Your task to perform on an android device: change the clock display to analog Image 0: 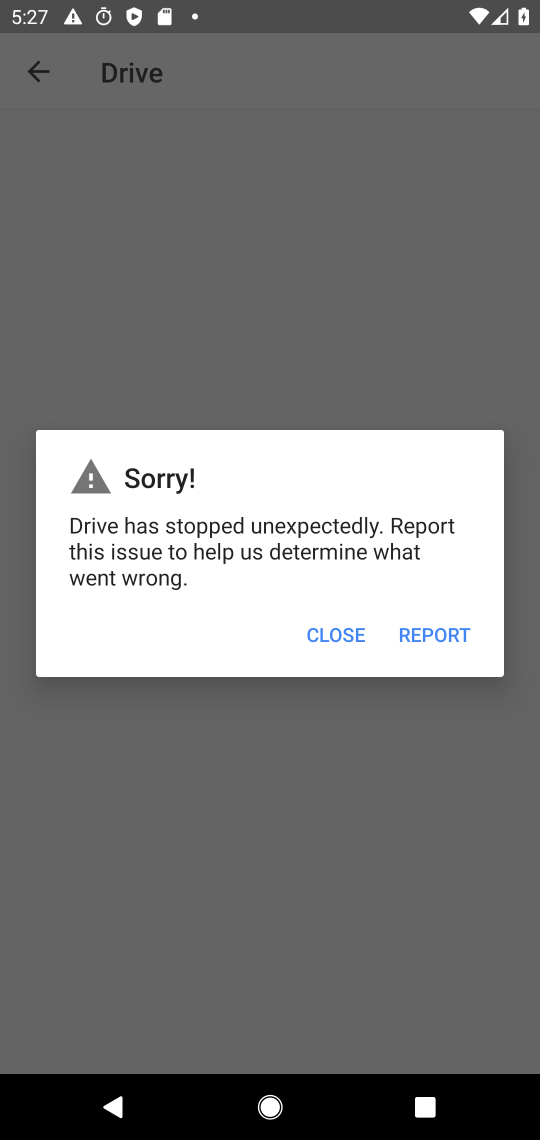
Step 0: press home button
Your task to perform on an android device: change the clock display to analog Image 1: 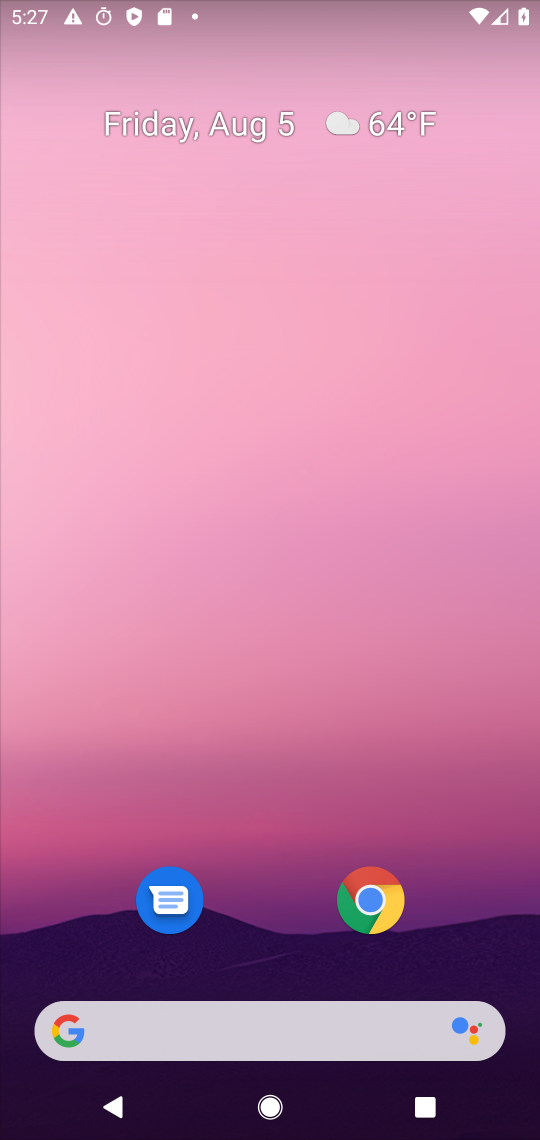
Step 1: drag from (231, 1019) to (263, 91)
Your task to perform on an android device: change the clock display to analog Image 2: 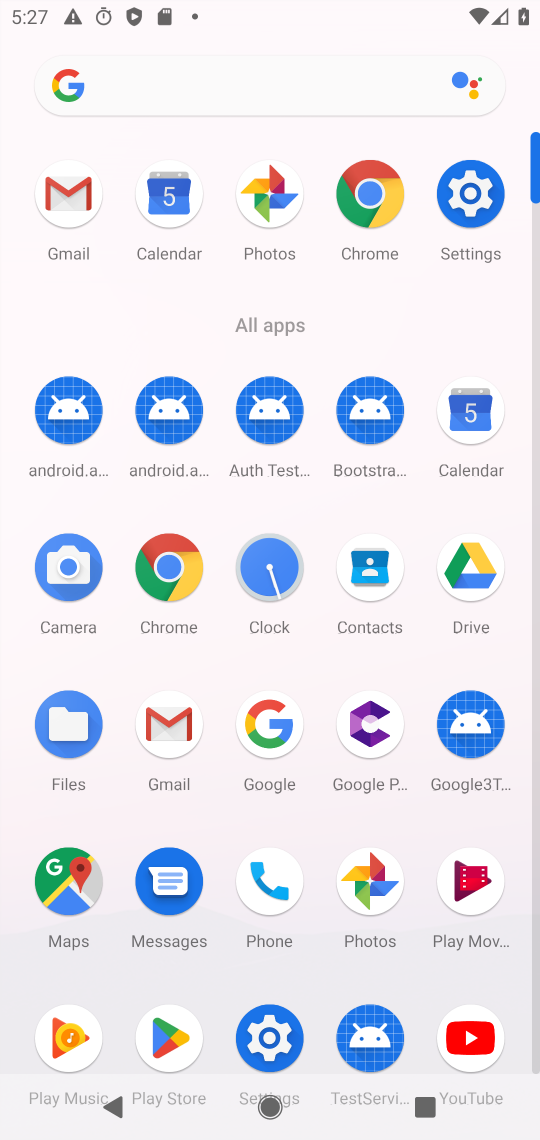
Step 2: click (273, 561)
Your task to perform on an android device: change the clock display to analog Image 3: 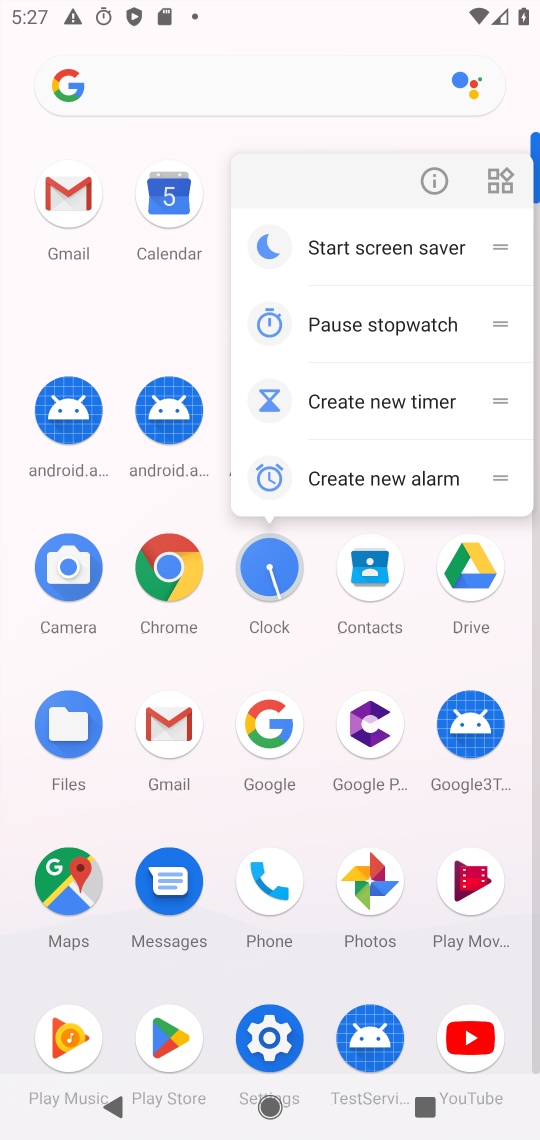
Step 3: click (274, 561)
Your task to perform on an android device: change the clock display to analog Image 4: 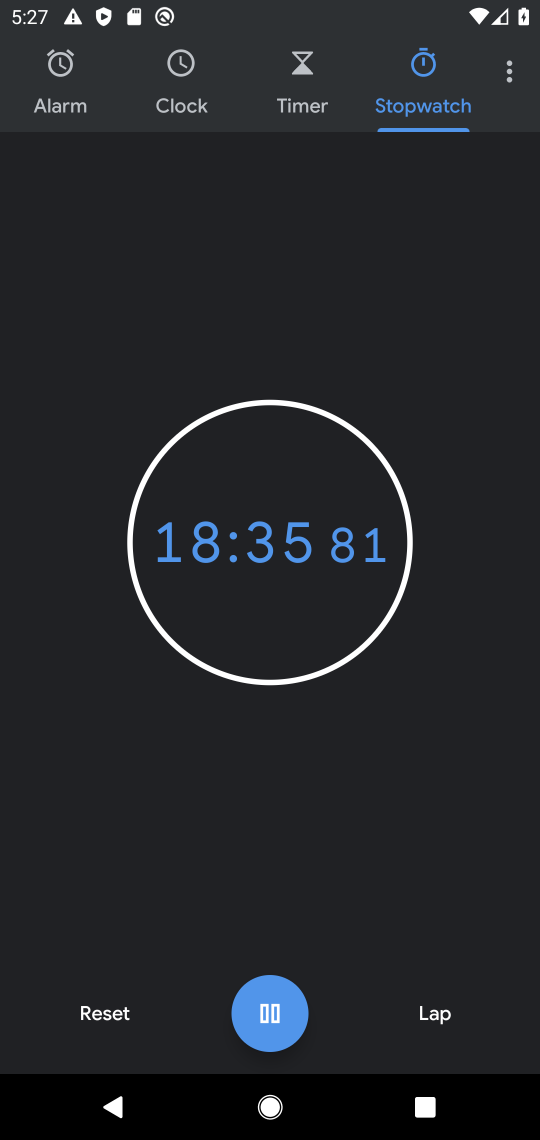
Step 4: click (523, 46)
Your task to perform on an android device: change the clock display to analog Image 5: 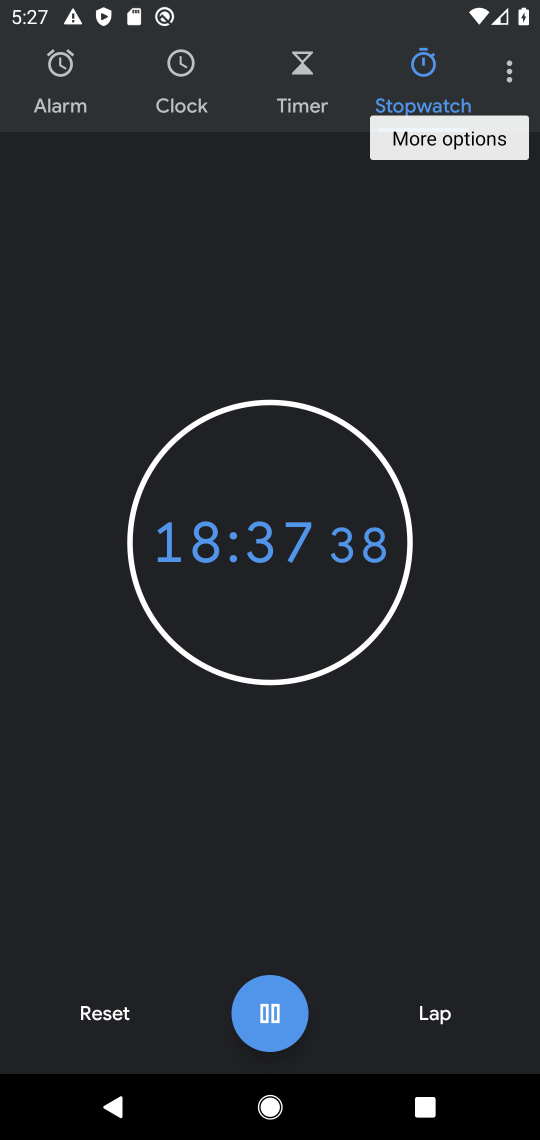
Step 5: click (514, 74)
Your task to perform on an android device: change the clock display to analog Image 6: 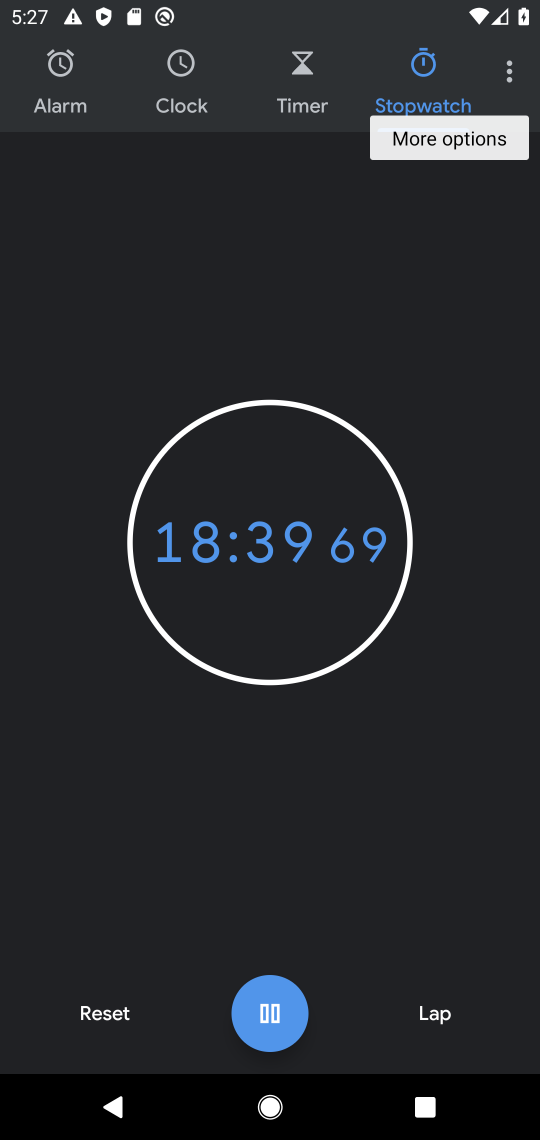
Step 6: click (514, 74)
Your task to perform on an android device: change the clock display to analog Image 7: 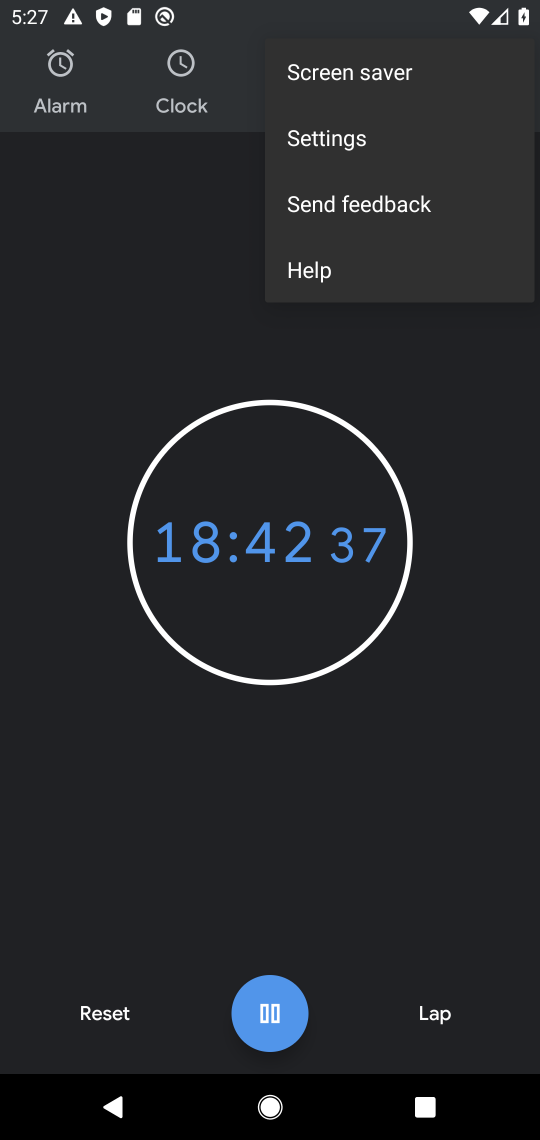
Step 7: click (379, 130)
Your task to perform on an android device: change the clock display to analog Image 8: 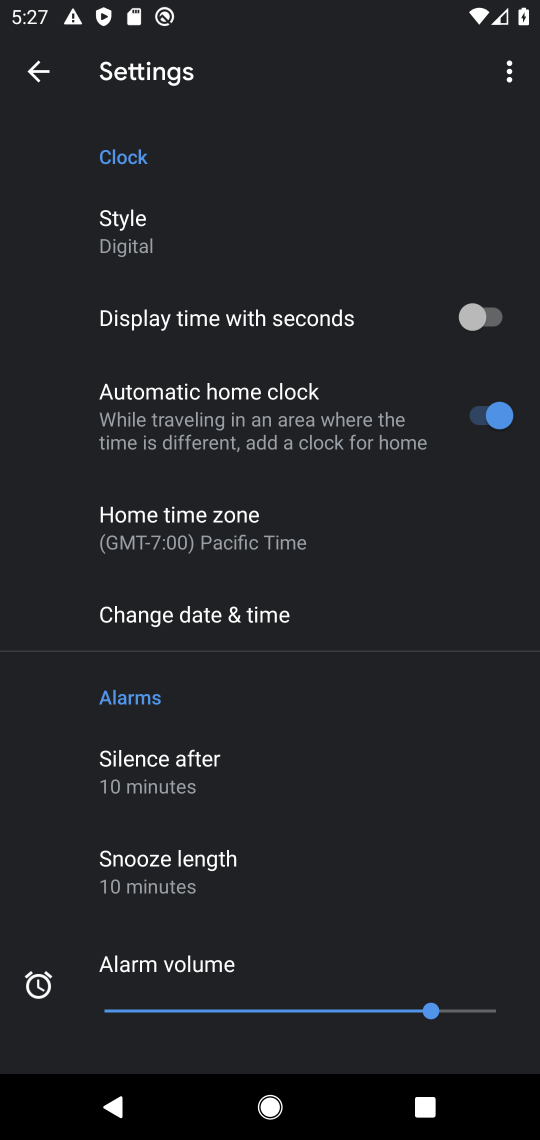
Step 8: click (127, 240)
Your task to perform on an android device: change the clock display to analog Image 9: 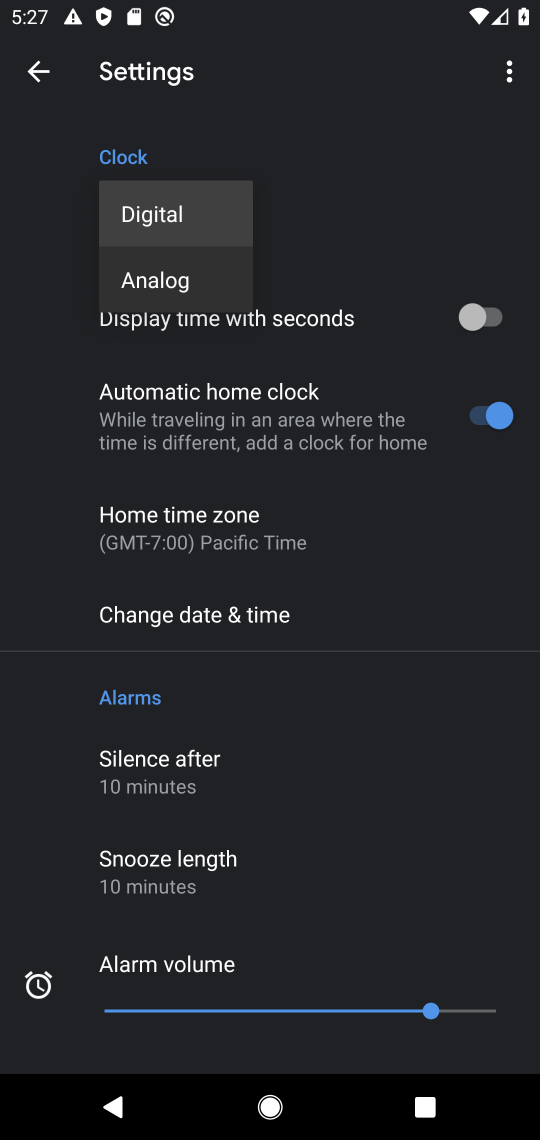
Step 9: click (194, 282)
Your task to perform on an android device: change the clock display to analog Image 10: 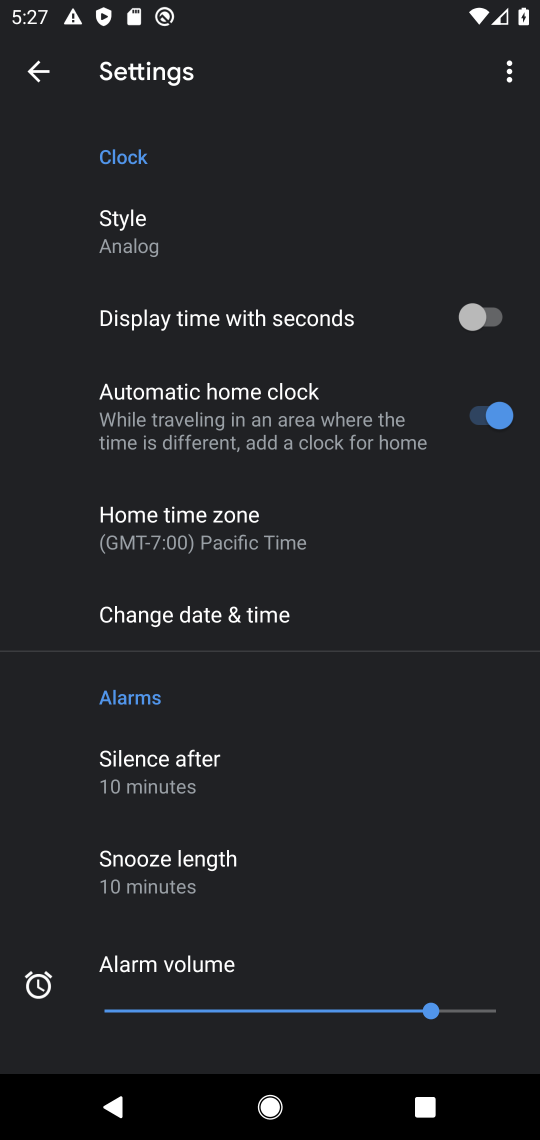
Step 10: task complete